Your task to perform on an android device: Open the stopwatch Image 0: 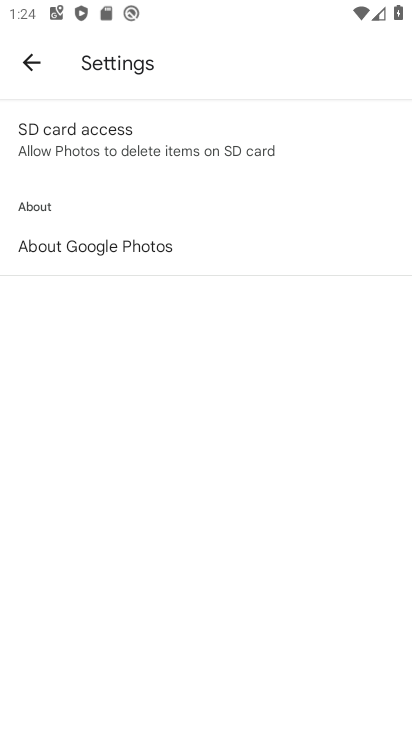
Step 0: press home button
Your task to perform on an android device: Open the stopwatch Image 1: 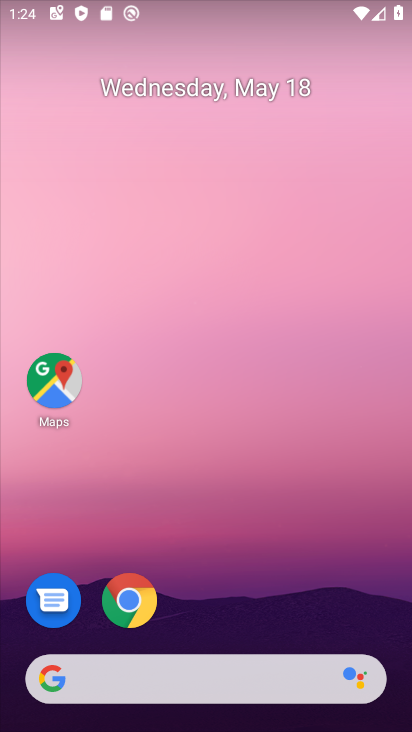
Step 1: drag from (233, 586) to (178, 87)
Your task to perform on an android device: Open the stopwatch Image 2: 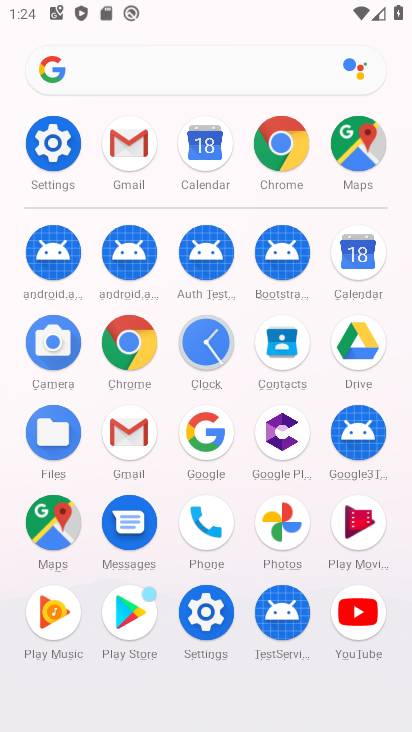
Step 2: click (205, 344)
Your task to perform on an android device: Open the stopwatch Image 3: 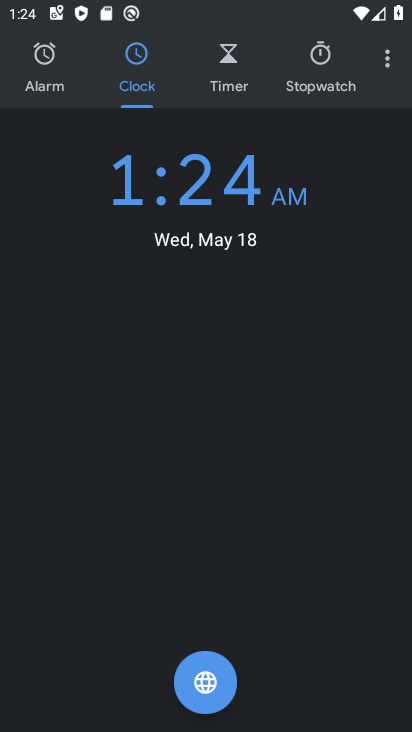
Step 3: click (322, 56)
Your task to perform on an android device: Open the stopwatch Image 4: 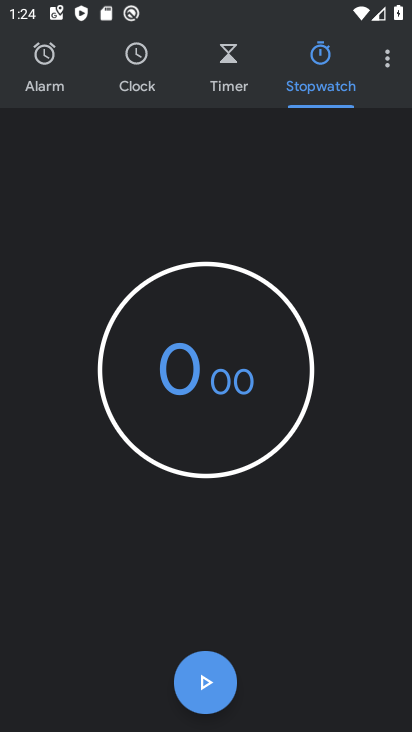
Step 4: task complete